Your task to perform on an android device: Go to location settings Image 0: 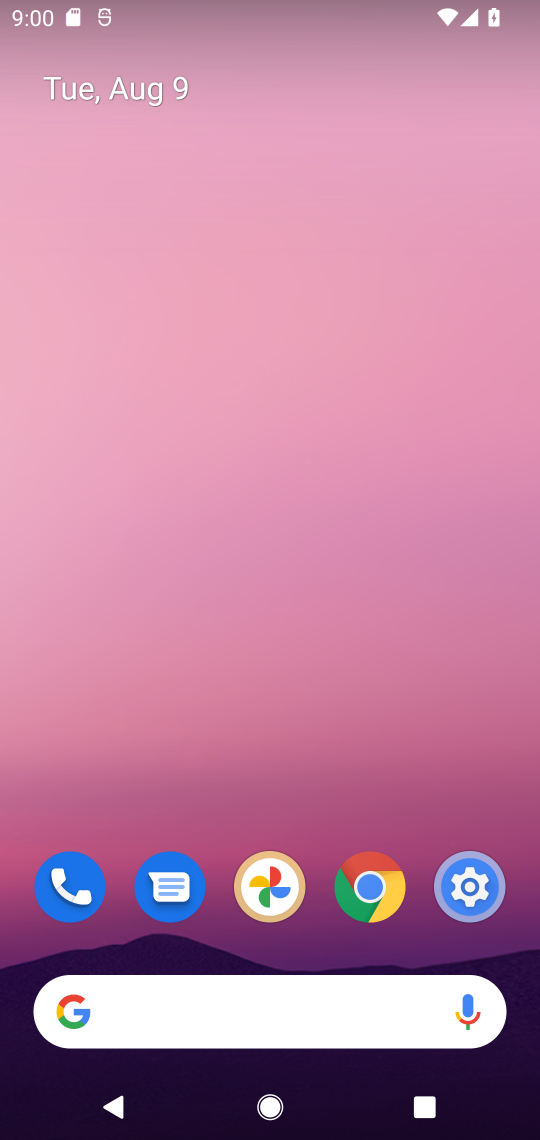
Step 0: click (461, 870)
Your task to perform on an android device: Go to location settings Image 1: 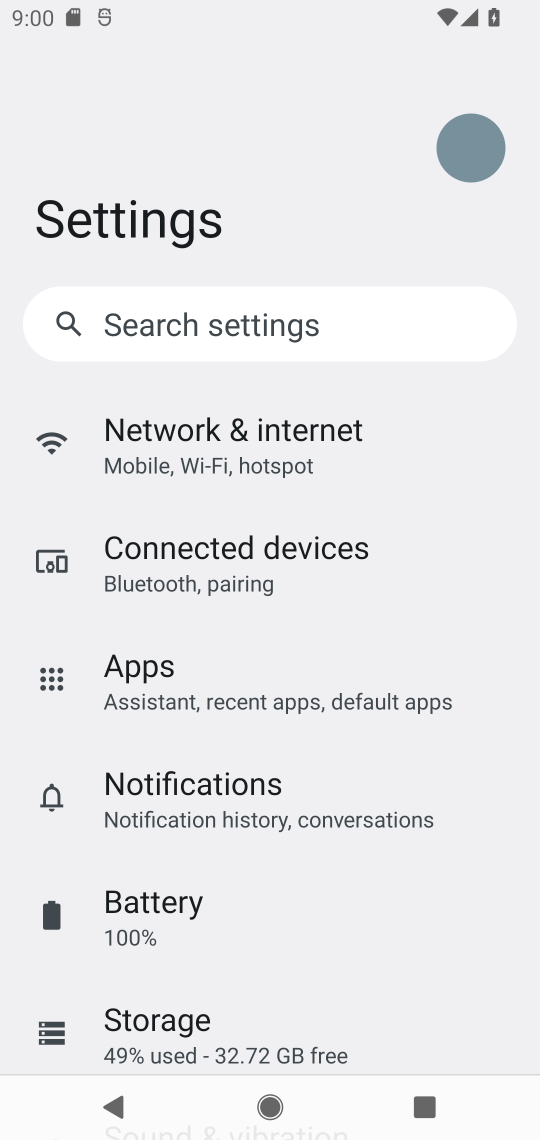
Step 1: drag from (277, 958) to (288, 359)
Your task to perform on an android device: Go to location settings Image 2: 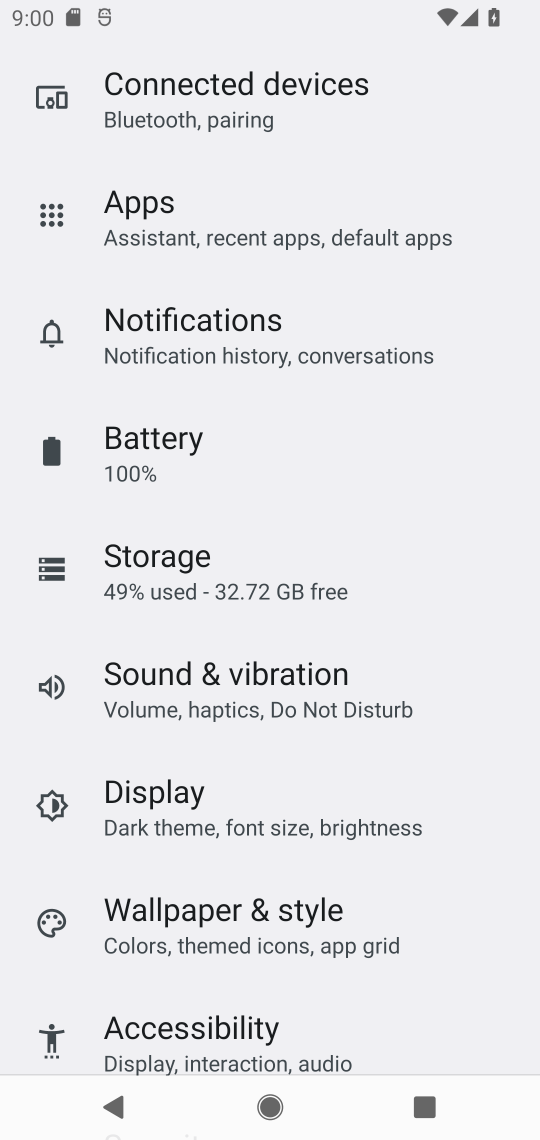
Step 2: drag from (245, 958) to (233, 442)
Your task to perform on an android device: Go to location settings Image 3: 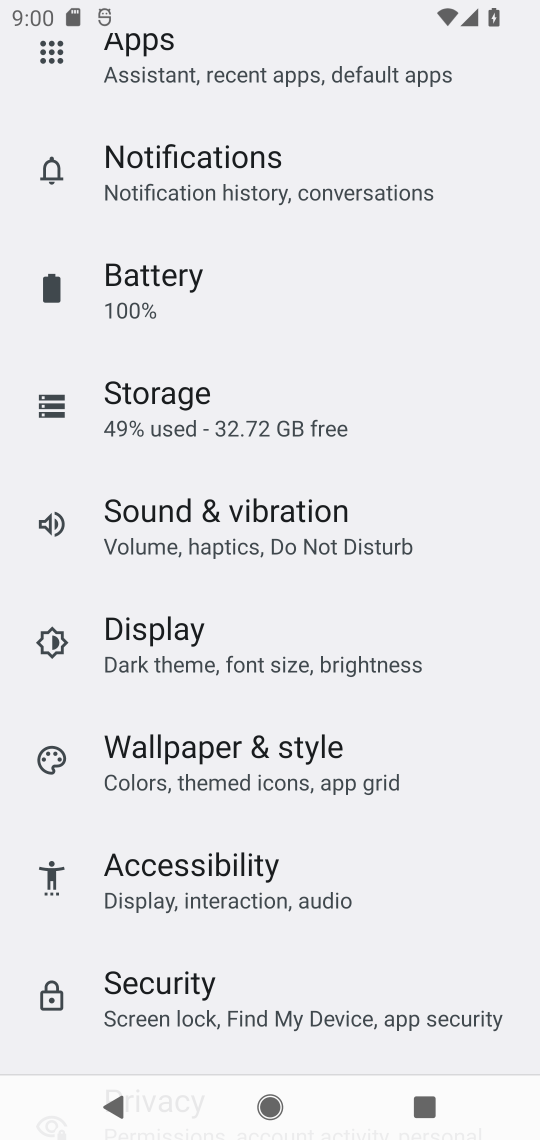
Step 3: drag from (217, 859) to (309, 227)
Your task to perform on an android device: Go to location settings Image 4: 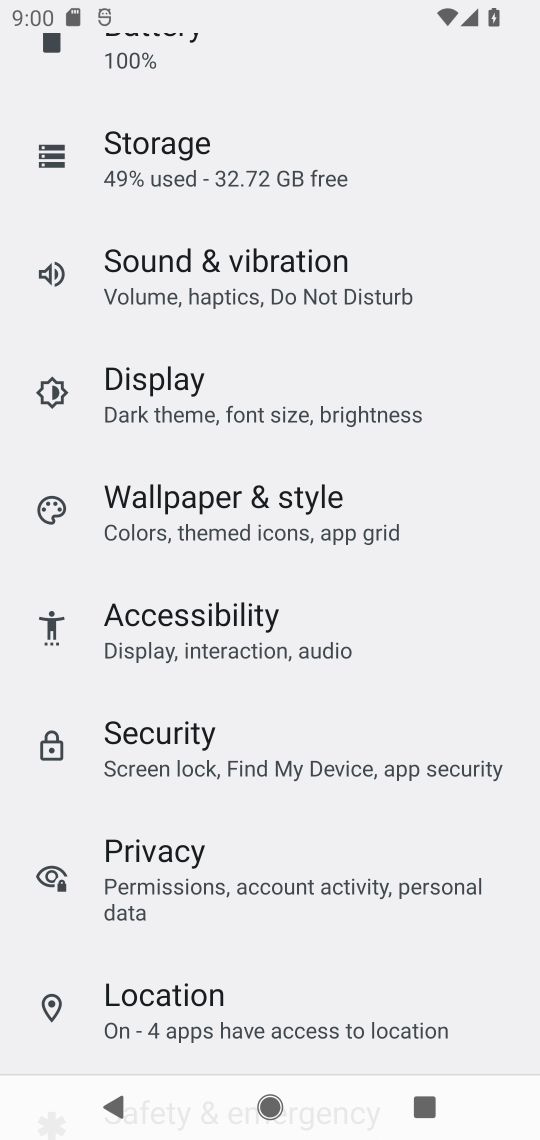
Step 4: click (213, 993)
Your task to perform on an android device: Go to location settings Image 5: 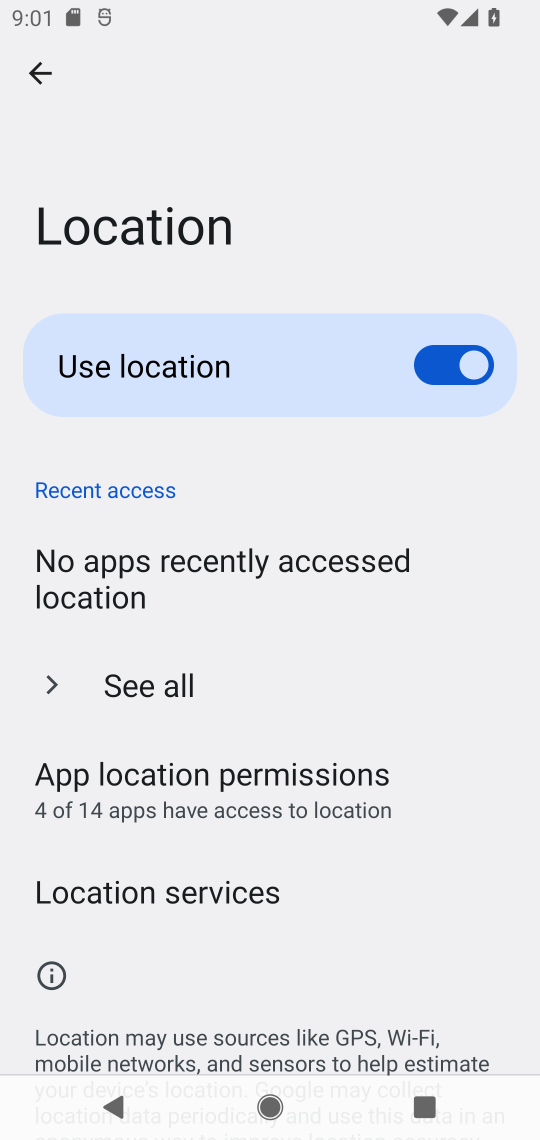
Step 5: task complete